Your task to perform on an android device: Show me recent news Image 0: 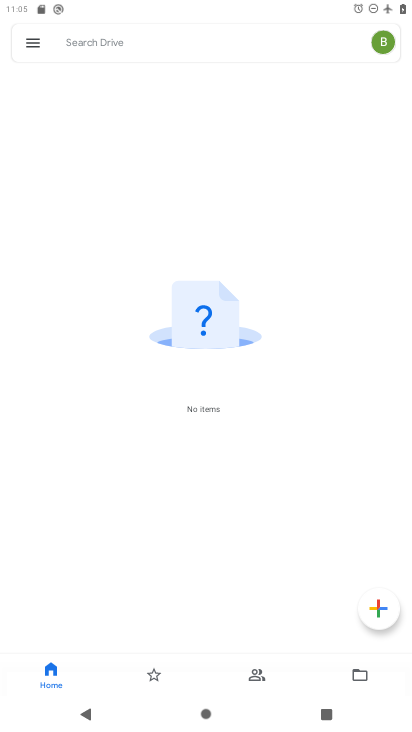
Step 0: press home button
Your task to perform on an android device: Show me recent news Image 1: 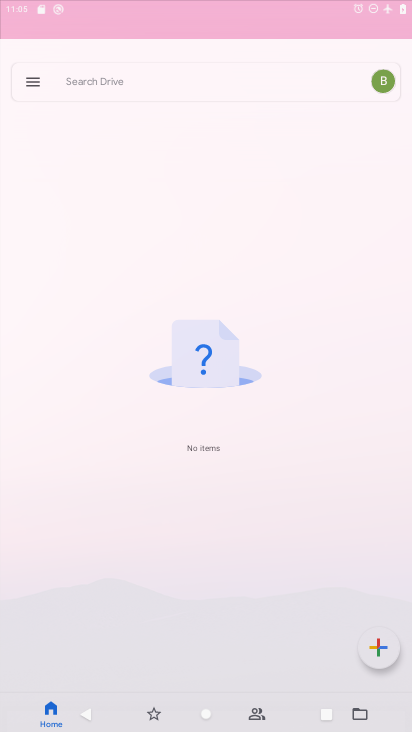
Step 1: drag from (379, 661) to (163, 48)
Your task to perform on an android device: Show me recent news Image 2: 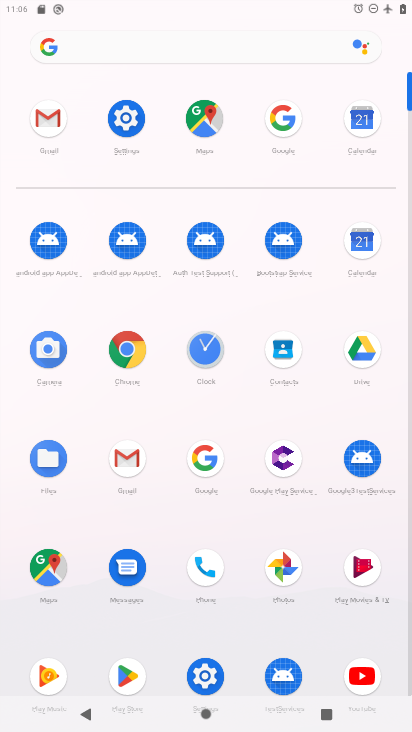
Step 2: click (203, 464)
Your task to perform on an android device: Show me recent news Image 3: 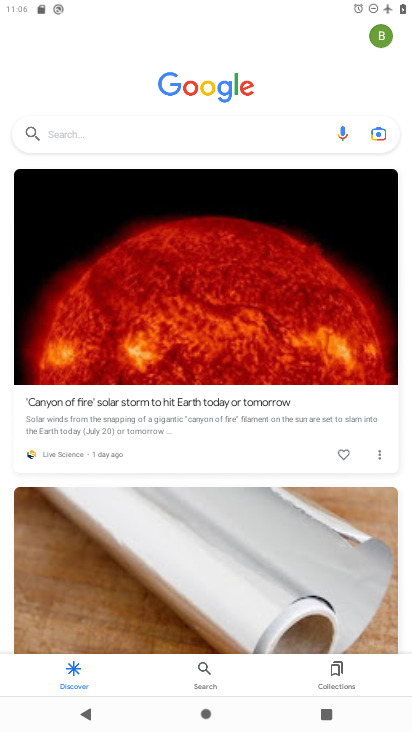
Step 3: click (110, 133)
Your task to perform on an android device: Show me recent news Image 4: 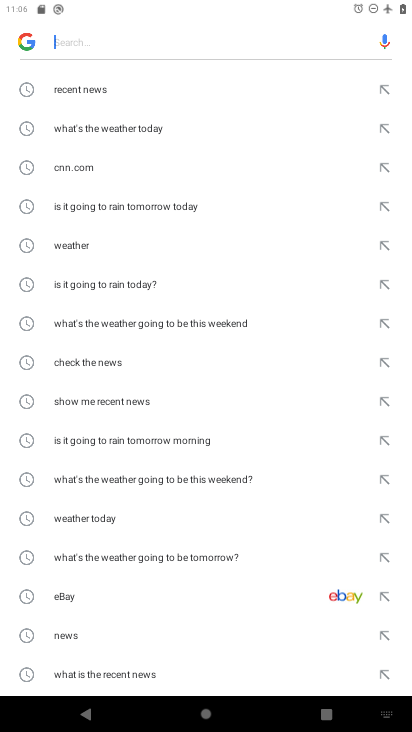
Step 4: click (103, 674)
Your task to perform on an android device: Show me recent news Image 5: 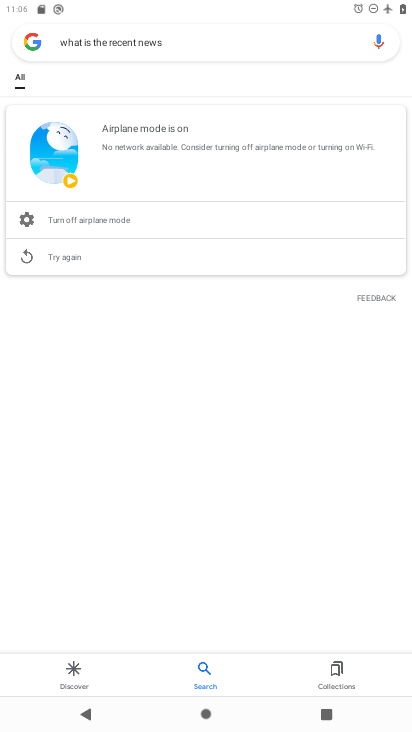
Step 5: task complete